Your task to perform on an android device: Open ESPN.com Image 0: 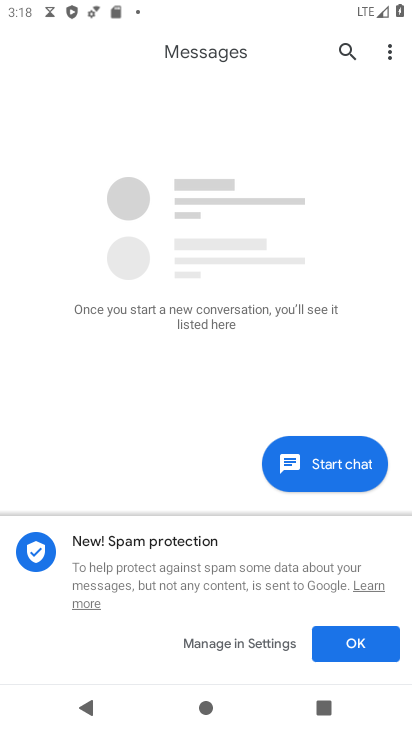
Step 0: press home button
Your task to perform on an android device: Open ESPN.com Image 1: 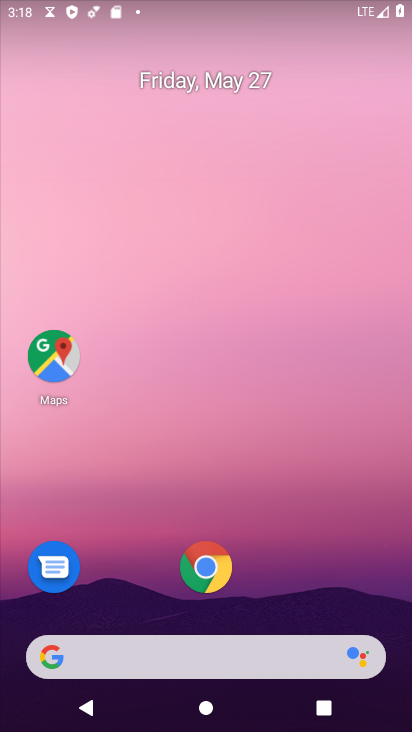
Step 1: click (200, 571)
Your task to perform on an android device: Open ESPN.com Image 2: 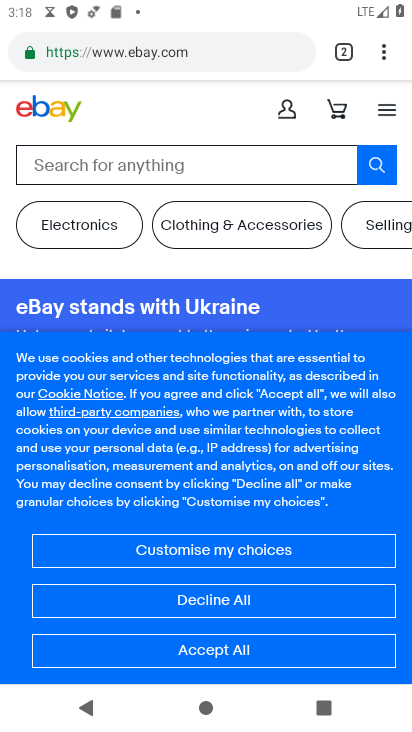
Step 2: click (336, 47)
Your task to perform on an android device: Open ESPN.com Image 3: 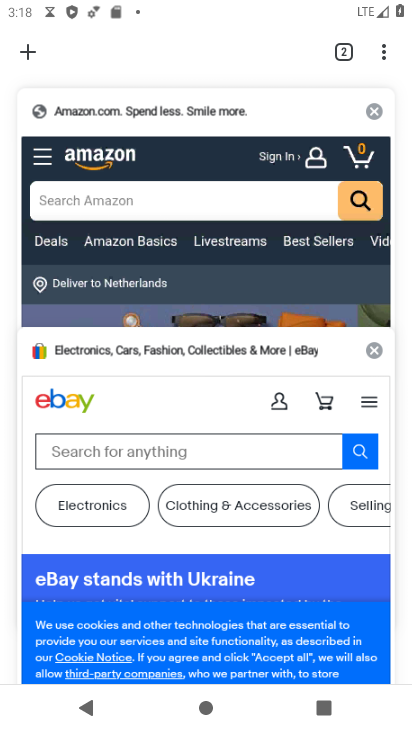
Step 3: click (25, 44)
Your task to perform on an android device: Open ESPN.com Image 4: 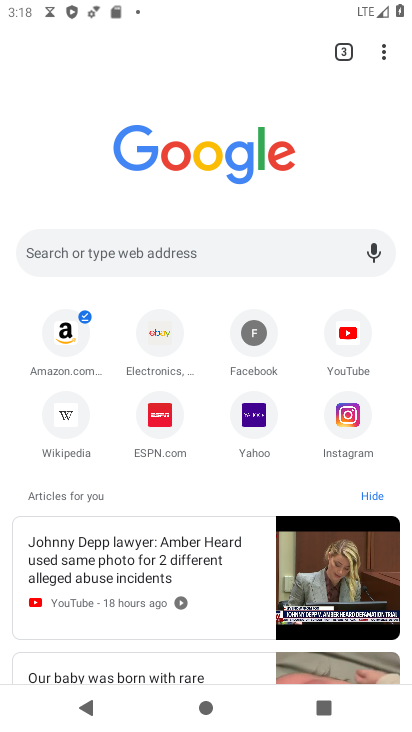
Step 4: click (178, 417)
Your task to perform on an android device: Open ESPN.com Image 5: 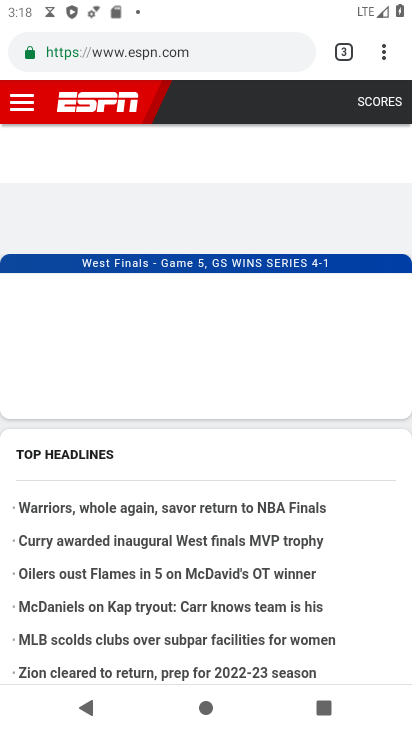
Step 5: task complete